Your task to perform on an android device: Do I have any events tomorrow? Image 0: 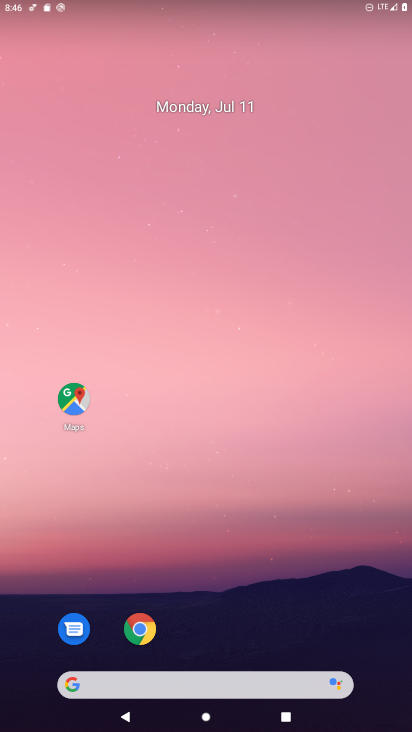
Step 0: click (215, 108)
Your task to perform on an android device: Do I have any events tomorrow? Image 1: 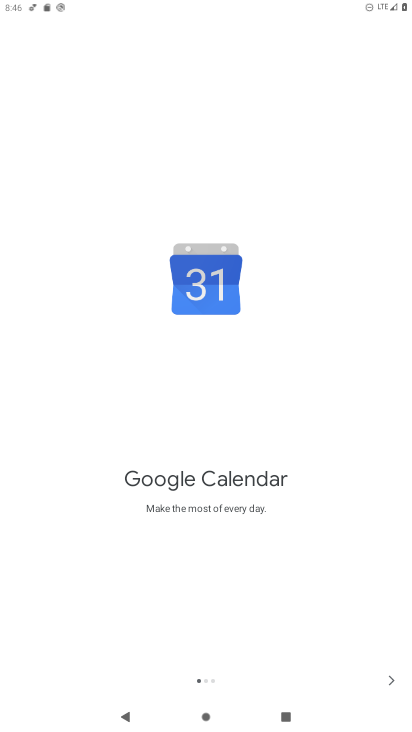
Step 1: click (392, 687)
Your task to perform on an android device: Do I have any events tomorrow? Image 2: 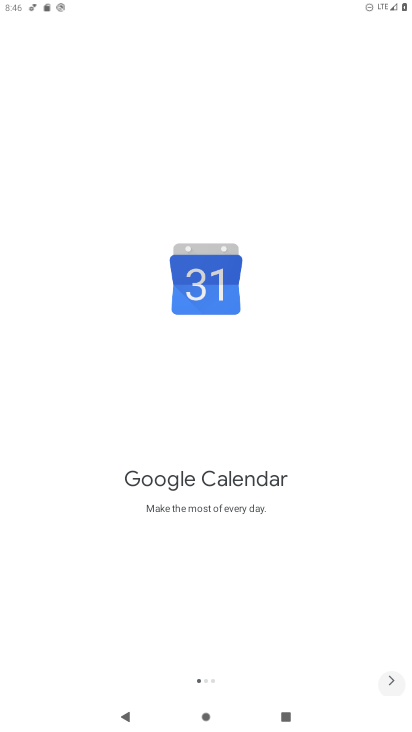
Step 2: click (392, 687)
Your task to perform on an android device: Do I have any events tomorrow? Image 3: 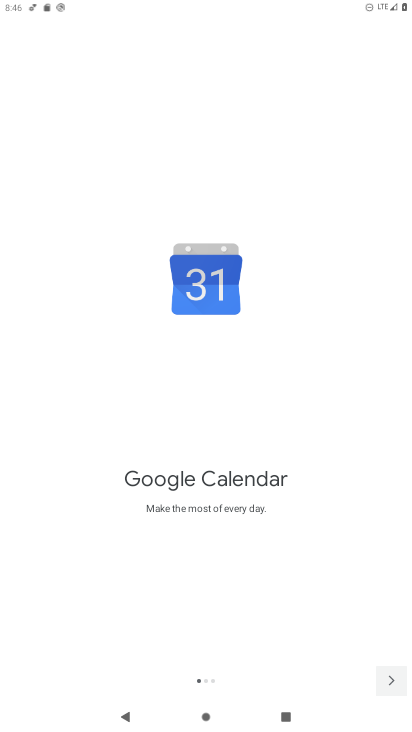
Step 3: click (392, 687)
Your task to perform on an android device: Do I have any events tomorrow? Image 4: 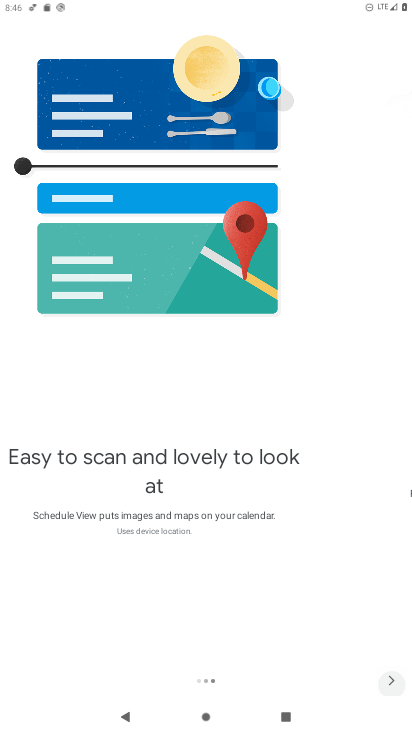
Step 4: click (392, 687)
Your task to perform on an android device: Do I have any events tomorrow? Image 5: 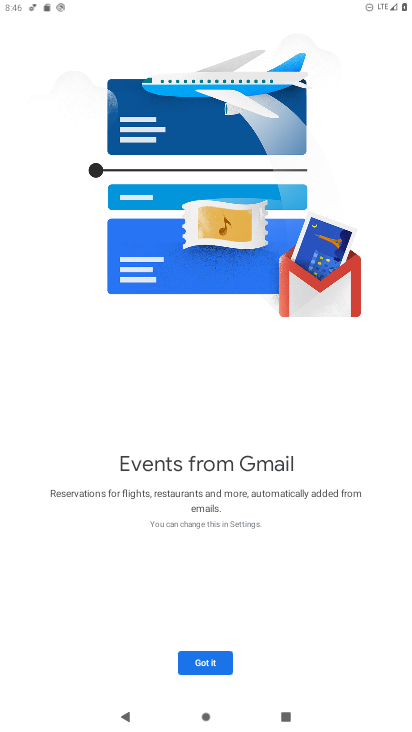
Step 5: click (392, 687)
Your task to perform on an android device: Do I have any events tomorrow? Image 6: 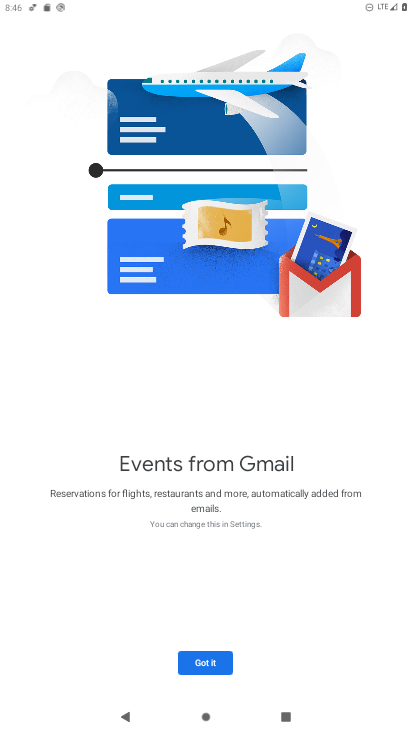
Step 6: click (392, 687)
Your task to perform on an android device: Do I have any events tomorrow? Image 7: 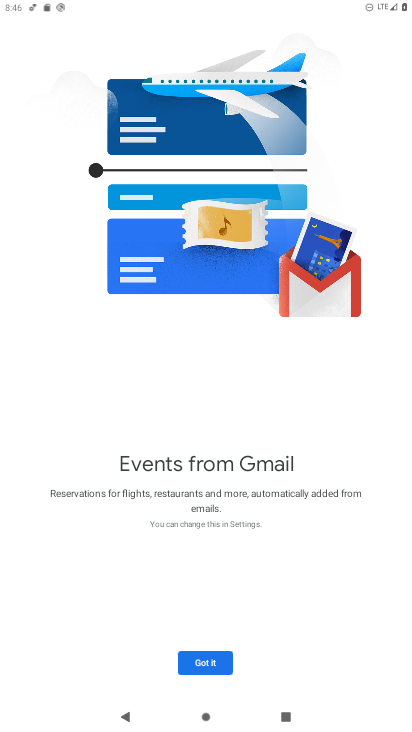
Step 7: click (392, 687)
Your task to perform on an android device: Do I have any events tomorrow? Image 8: 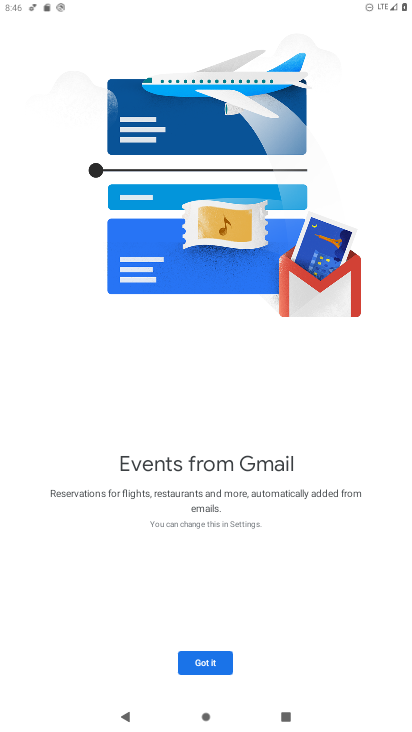
Step 8: click (219, 667)
Your task to perform on an android device: Do I have any events tomorrow? Image 9: 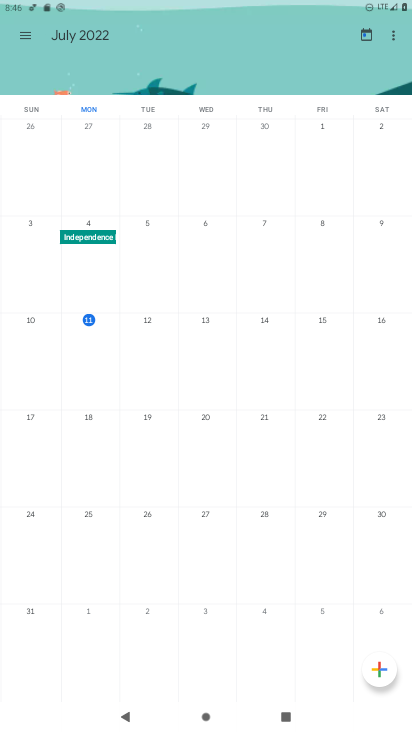
Step 9: click (152, 356)
Your task to perform on an android device: Do I have any events tomorrow? Image 10: 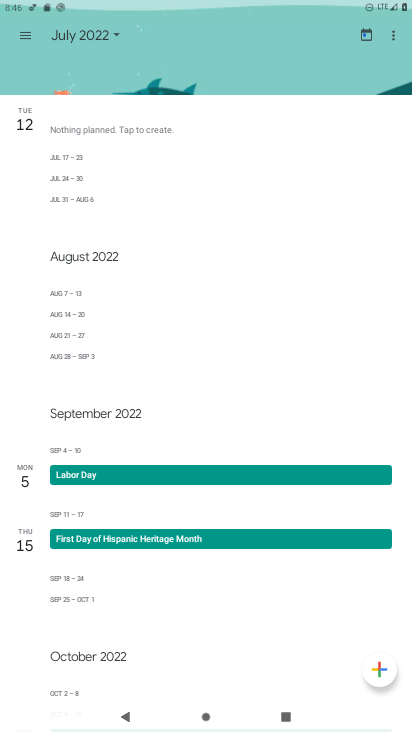
Step 10: task complete